Your task to perform on an android device: Open Google Chrome and click the shortcut for Amazon.com Image 0: 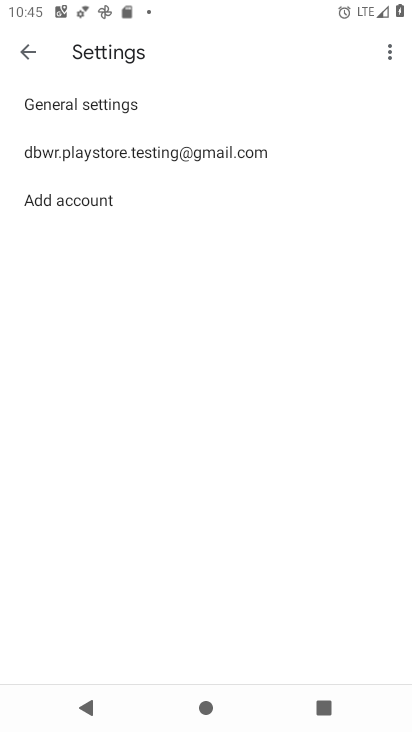
Step 0: press home button
Your task to perform on an android device: Open Google Chrome and click the shortcut for Amazon.com Image 1: 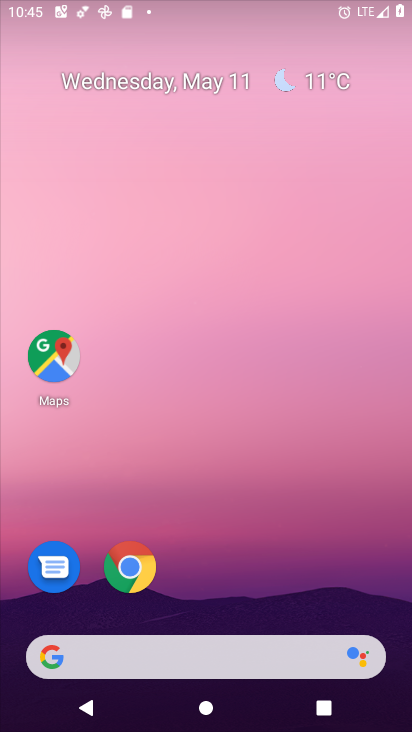
Step 1: click (106, 573)
Your task to perform on an android device: Open Google Chrome and click the shortcut for Amazon.com Image 2: 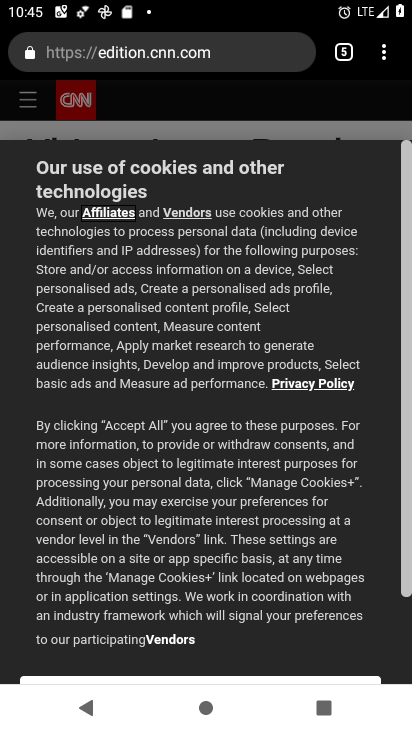
Step 2: click (343, 48)
Your task to perform on an android device: Open Google Chrome and click the shortcut for Amazon.com Image 3: 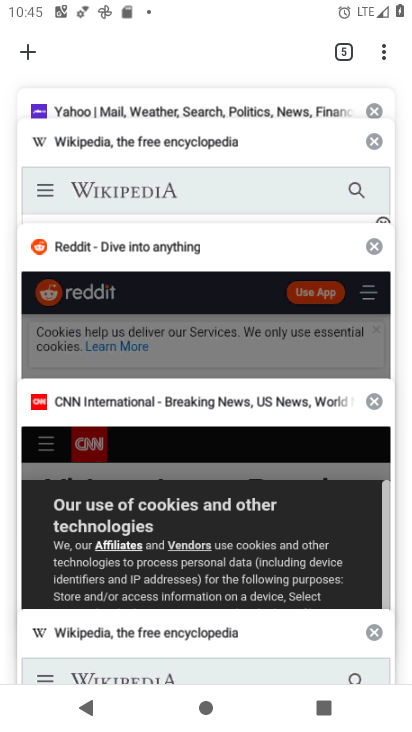
Step 3: drag from (146, 156) to (177, 536)
Your task to perform on an android device: Open Google Chrome and click the shortcut for Amazon.com Image 4: 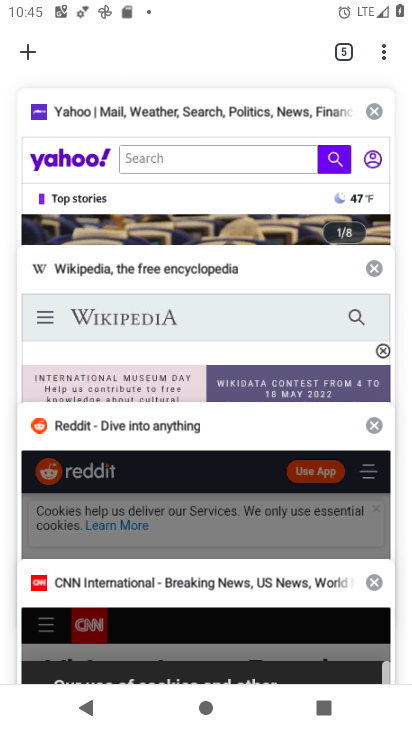
Step 4: click (29, 56)
Your task to perform on an android device: Open Google Chrome and click the shortcut for Amazon.com Image 5: 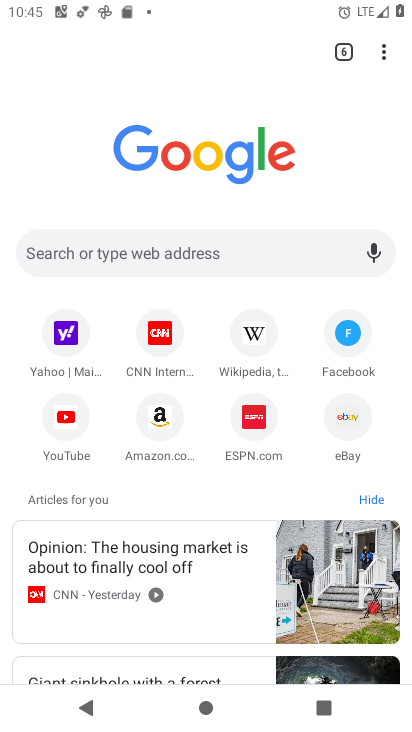
Step 5: click (154, 420)
Your task to perform on an android device: Open Google Chrome and click the shortcut for Amazon.com Image 6: 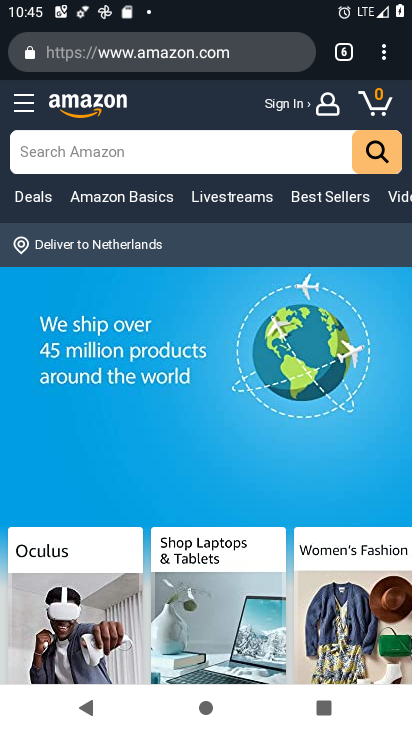
Step 6: task complete